Your task to perform on an android device: delete the emails in spam in the gmail app Image 0: 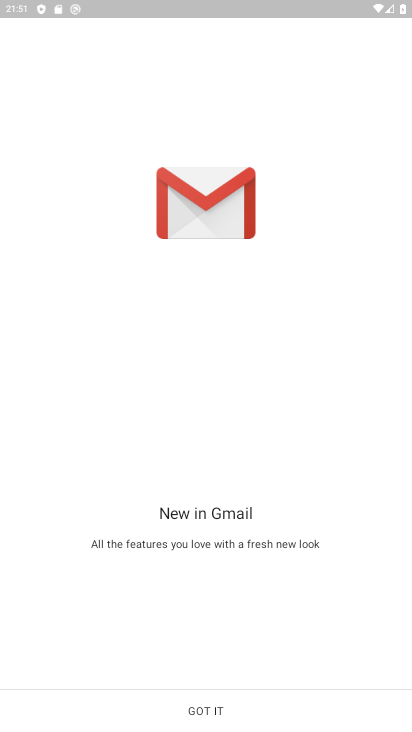
Step 0: click (245, 705)
Your task to perform on an android device: delete the emails in spam in the gmail app Image 1: 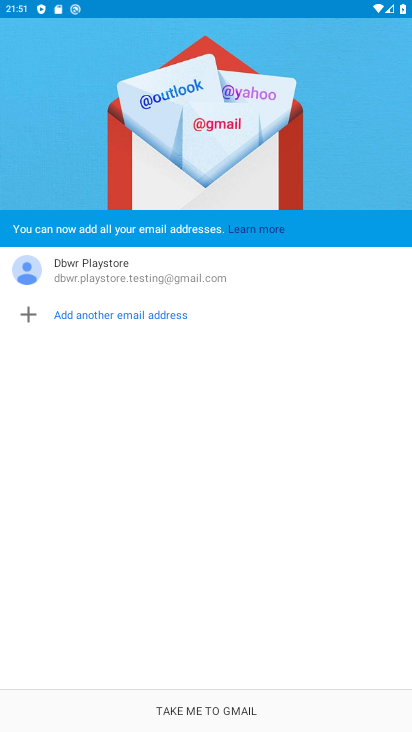
Step 1: click (242, 708)
Your task to perform on an android device: delete the emails in spam in the gmail app Image 2: 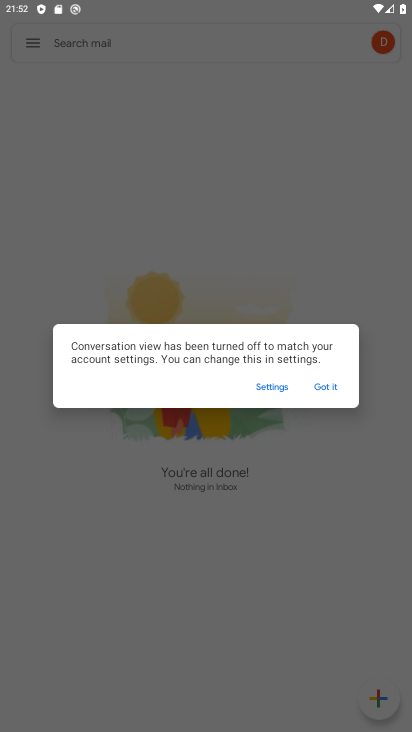
Step 2: click (328, 387)
Your task to perform on an android device: delete the emails in spam in the gmail app Image 3: 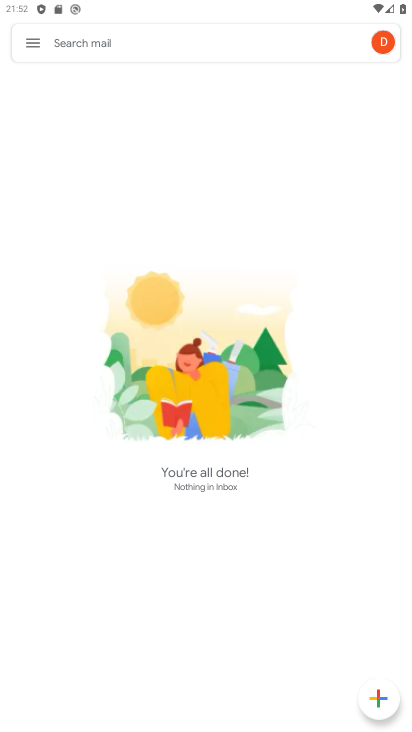
Step 3: click (25, 40)
Your task to perform on an android device: delete the emails in spam in the gmail app Image 4: 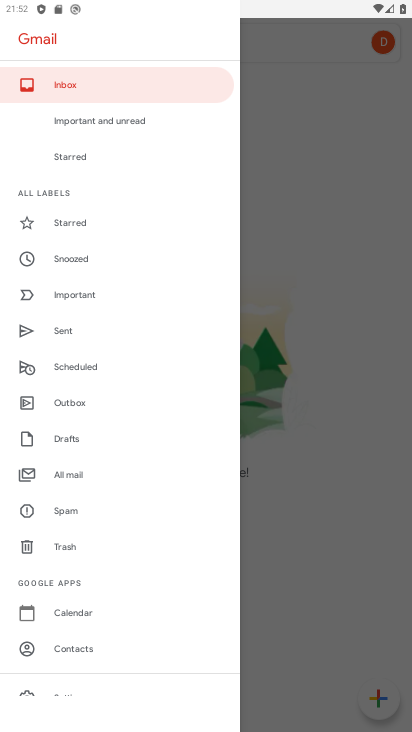
Step 4: drag from (125, 528) to (170, 264)
Your task to perform on an android device: delete the emails in spam in the gmail app Image 5: 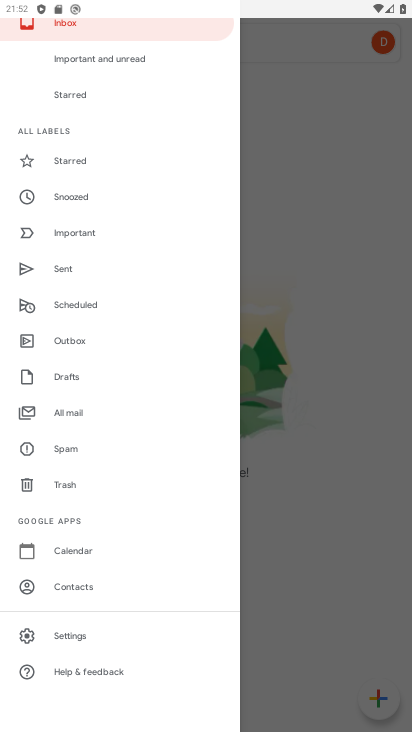
Step 5: click (59, 455)
Your task to perform on an android device: delete the emails in spam in the gmail app Image 6: 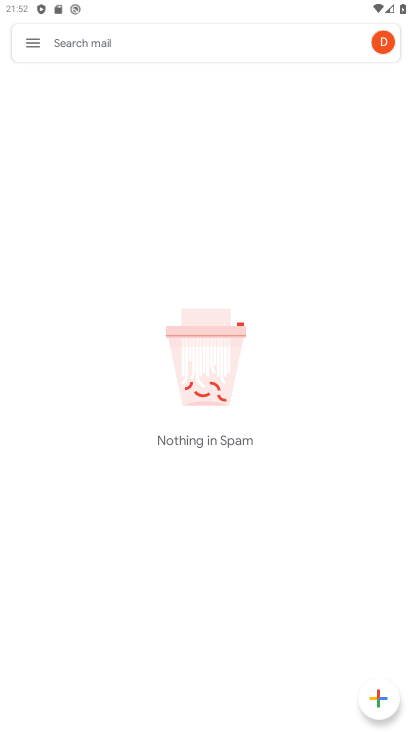
Step 6: task complete